Your task to perform on an android device: check out phone information Image 0: 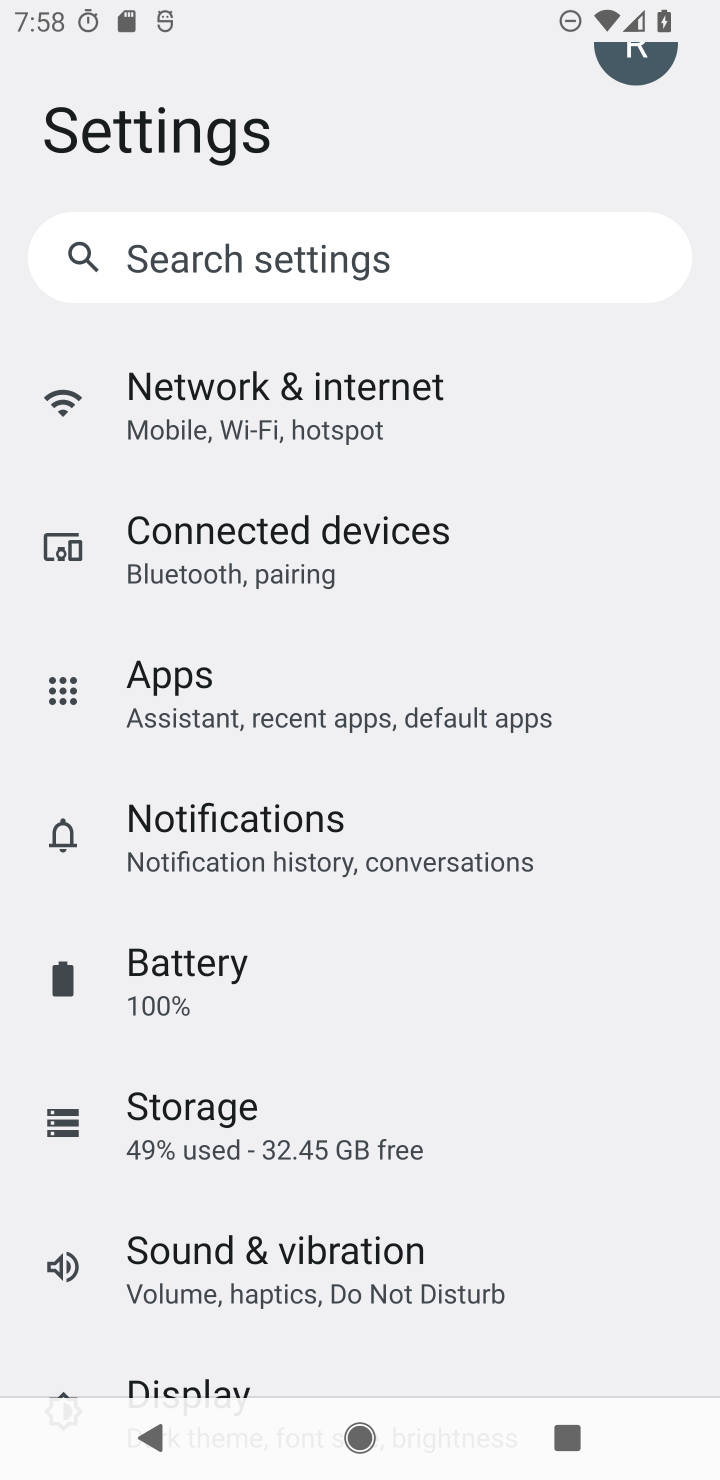
Step 0: press home button
Your task to perform on an android device: check out phone information Image 1: 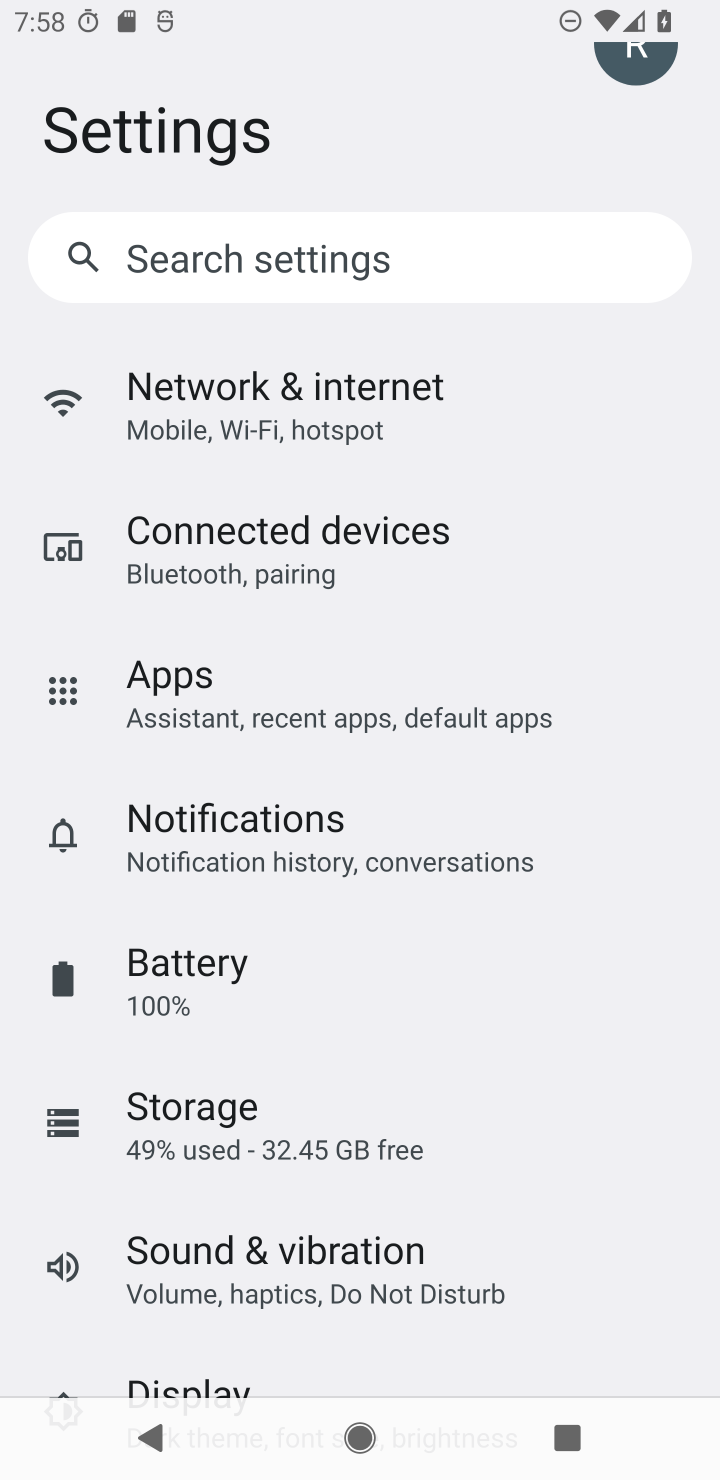
Step 1: press home button
Your task to perform on an android device: check out phone information Image 2: 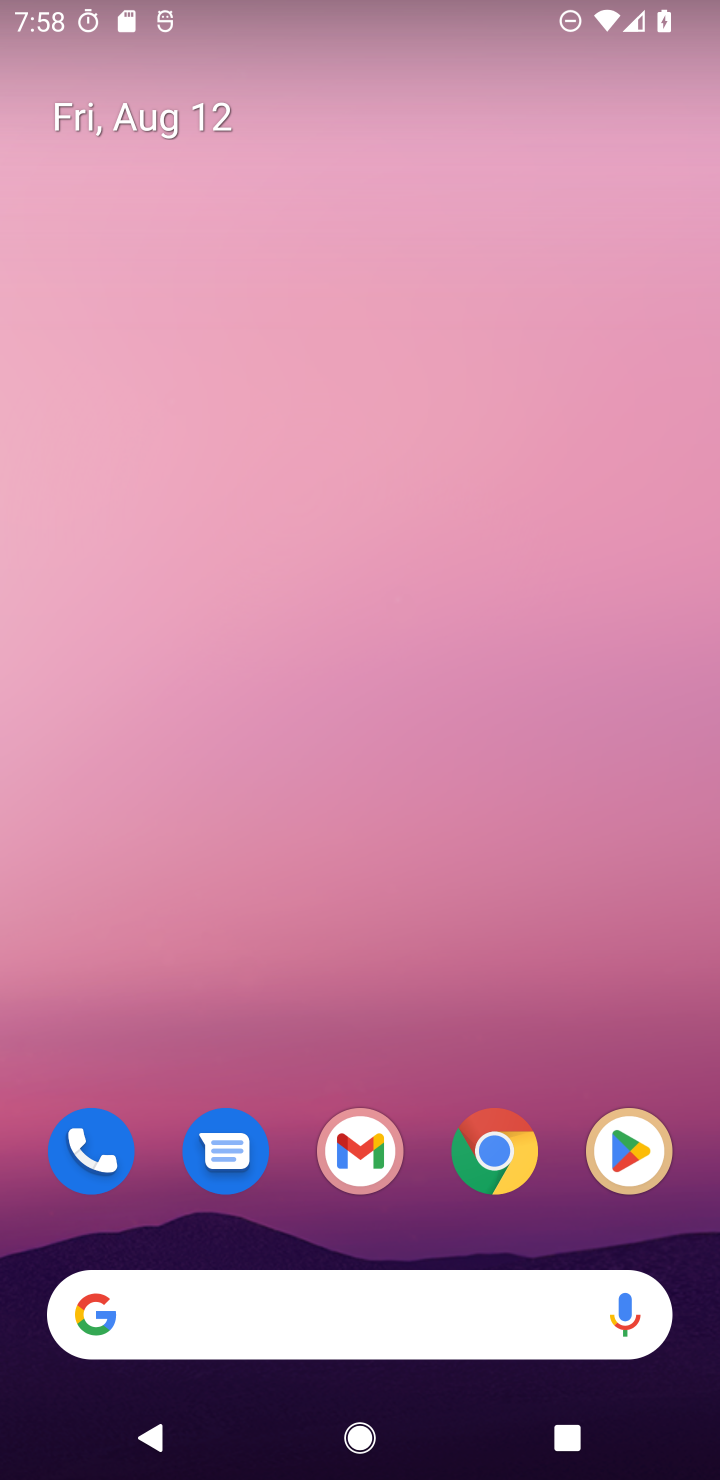
Step 2: drag from (390, 804) to (397, 56)
Your task to perform on an android device: check out phone information Image 3: 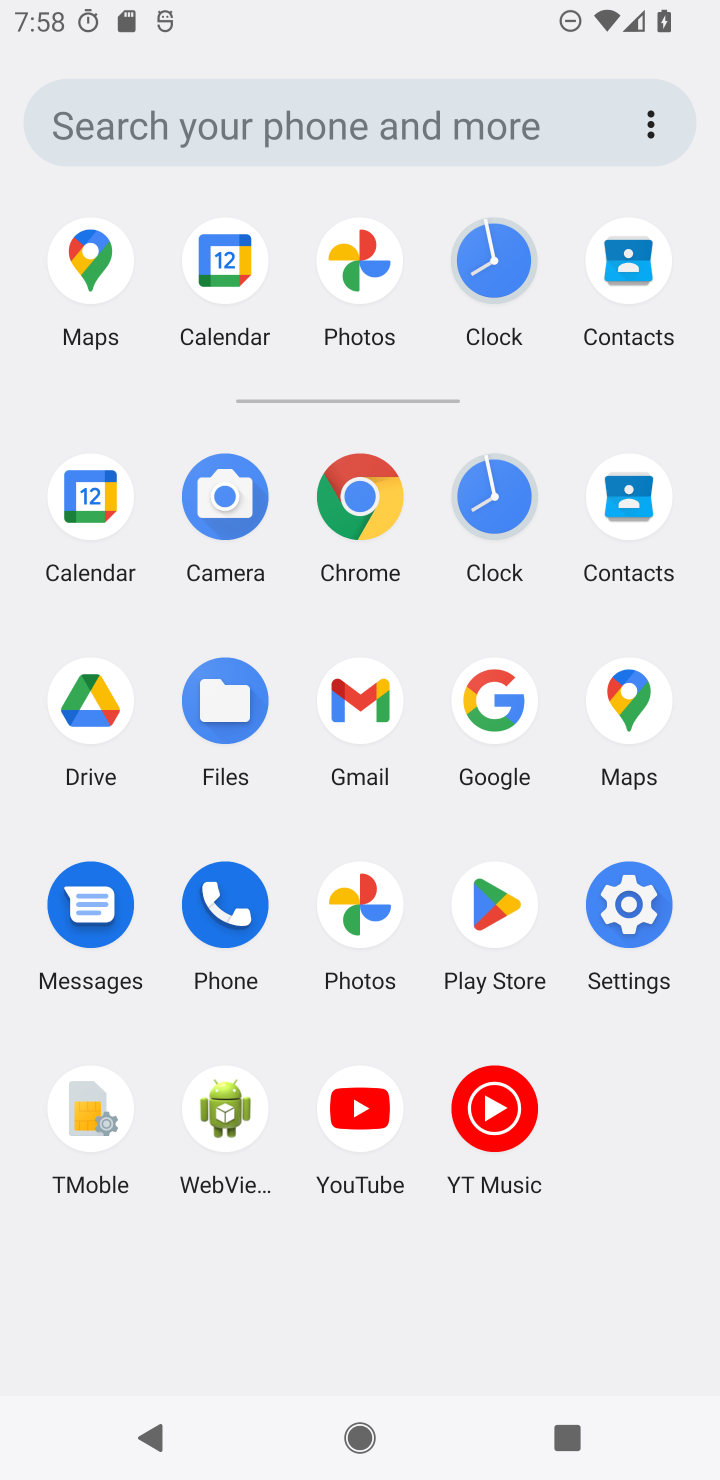
Step 3: click (235, 907)
Your task to perform on an android device: check out phone information Image 4: 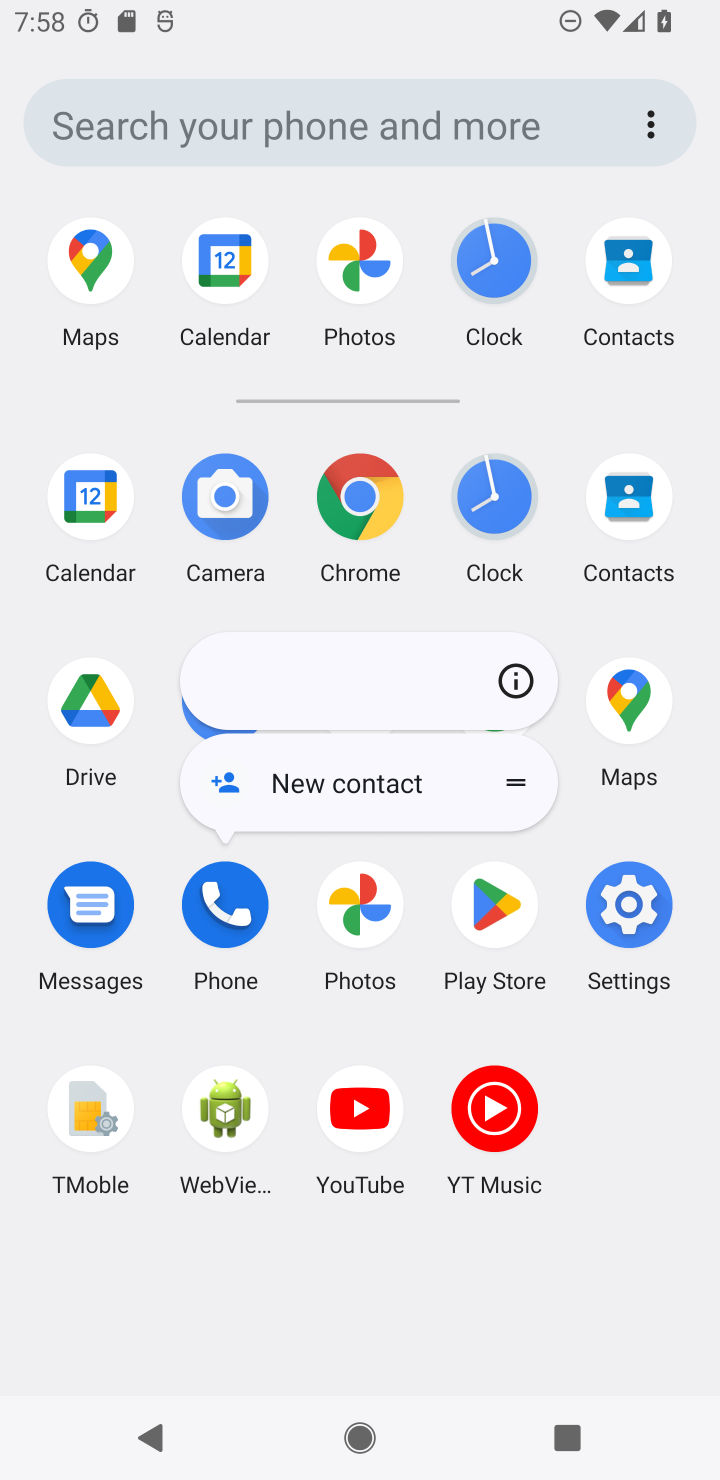
Step 4: click (527, 678)
Your task to perform on an android device: check out phone information Image 5: 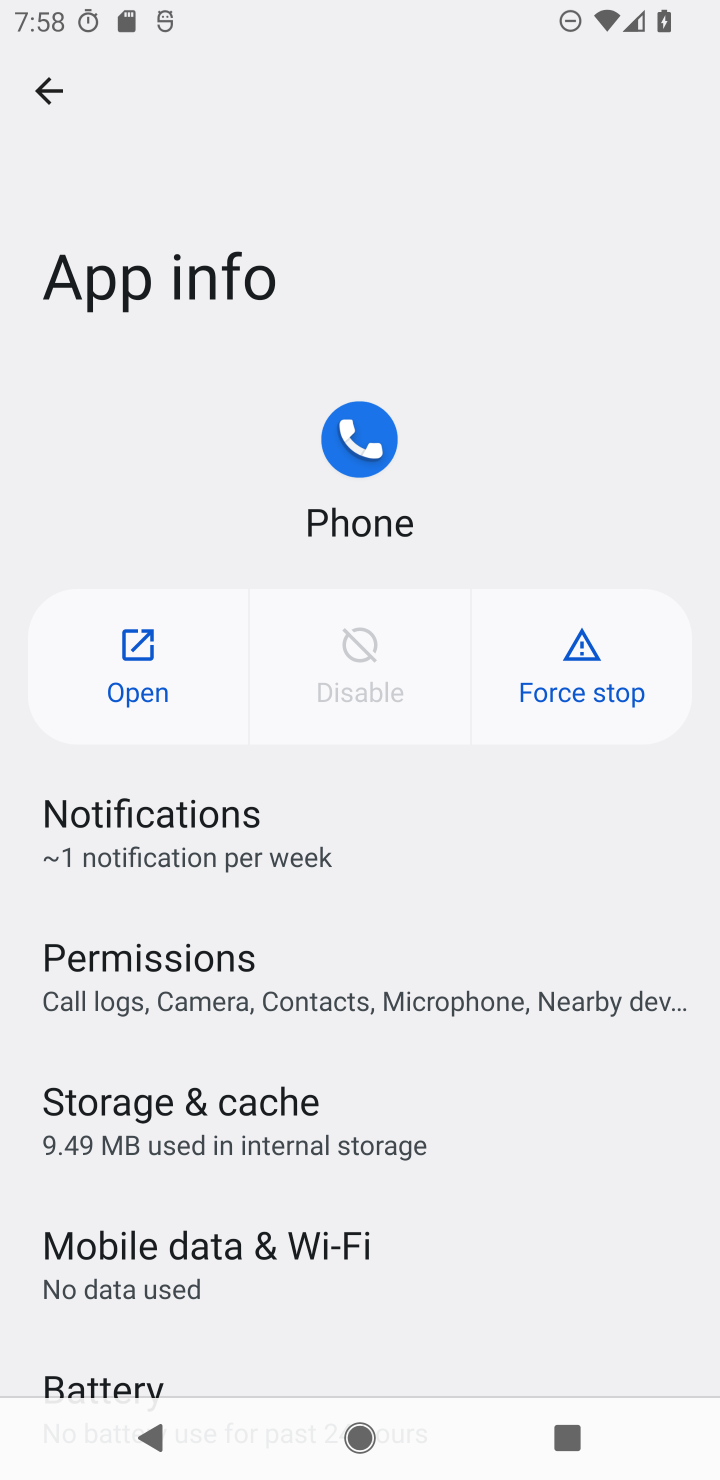
Step 5: task complete